Your task to perform on an android device: turn on airplane mode Image 0: 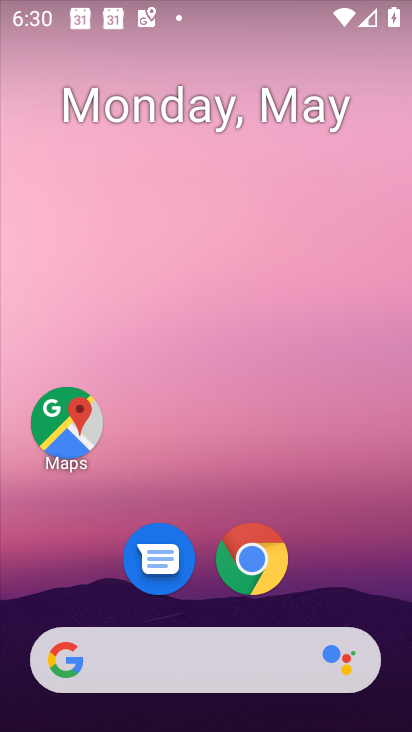
Step 0: drag from (244, 5) to (266, 479)
Your task to perform on an android device: turn on airplane mode Image 1: 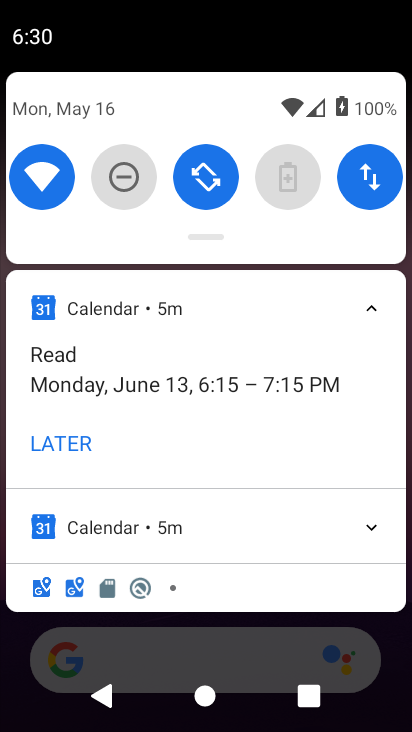
Step 1: drag from (319, 229) to (348, 709)
Your task to perform on an android device: turn on airplane mode Image 2: 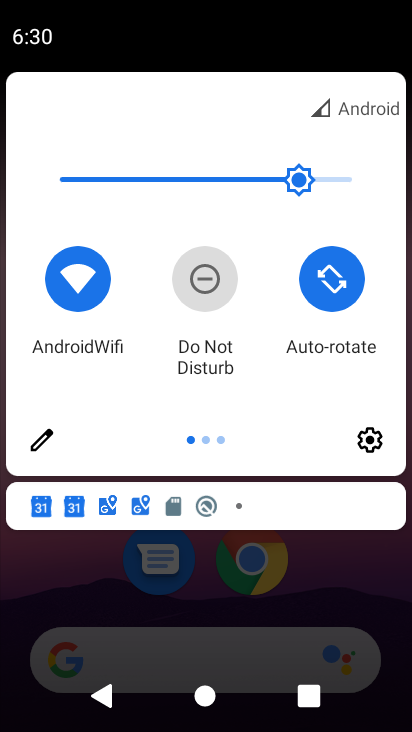
Step 2: drag from (322, 396) to (103, 392)
Your task to perform on an android device: turn on airplane mode Image 3: 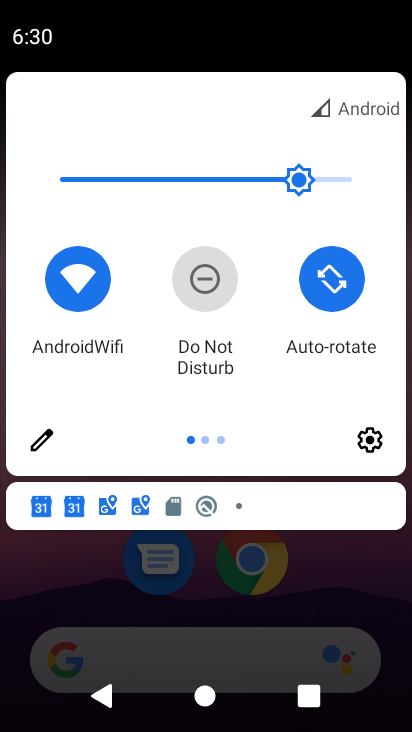
Step 3: drag from (317, 334) to (25, 332)
Your task to perform on an android device: turn on airplane mode Image 4: 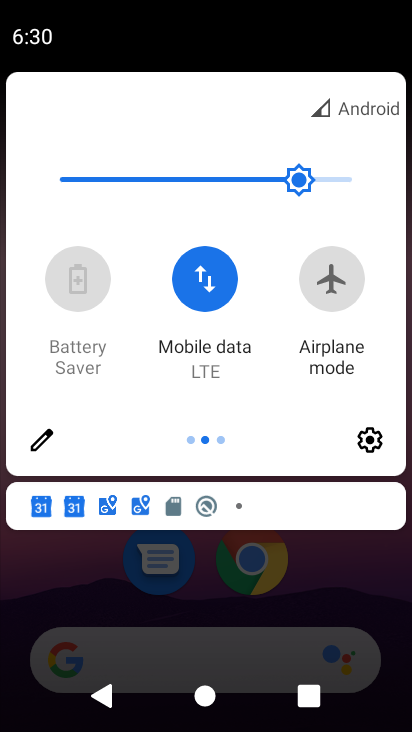
Step 4: click (335, 286)
Your task to perform on an android device: turn on airplane mode Image 5: 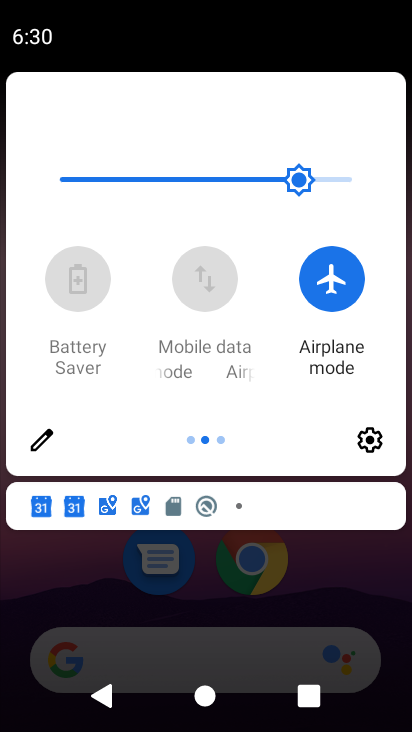
Step 5: task complete